Your task to perform on an android device: Find coffee shops on Maps Image 0: 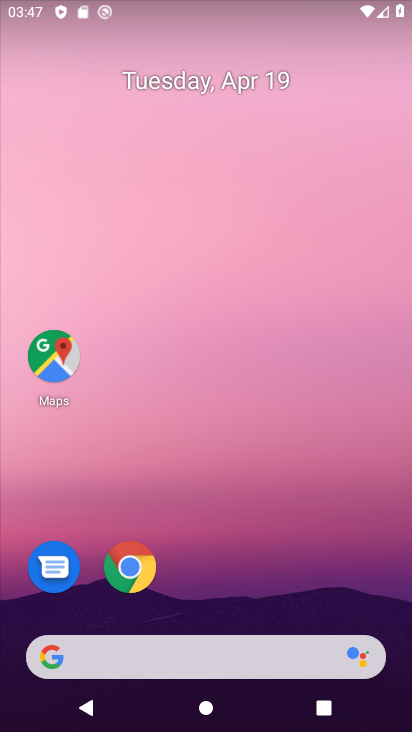
Step 0: drag from (213, 630) to (264, 100)
Your task to perform on an android device: Find coffee shops on Maps Image 1: 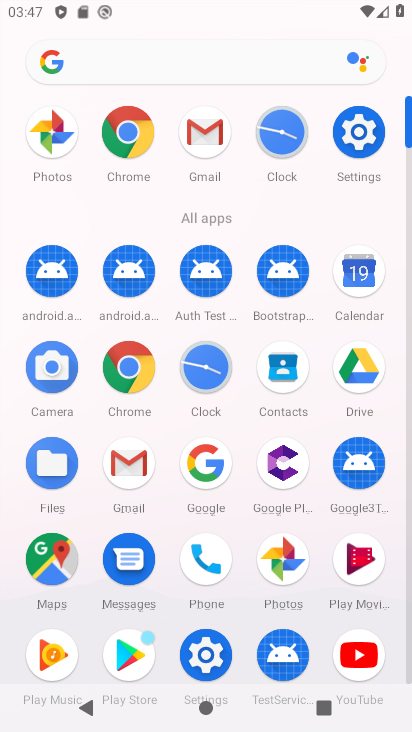
Step 1: click (66, 568)
Your task to perform on an android device: Find coffee shops on Maps Image 2: 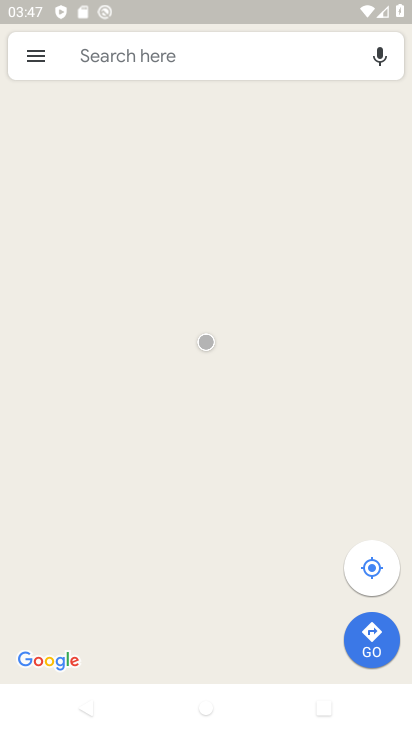
Step 2: click (187, 65)
Your task to perform on an android device: Find coffee shops on Maps Image 3: 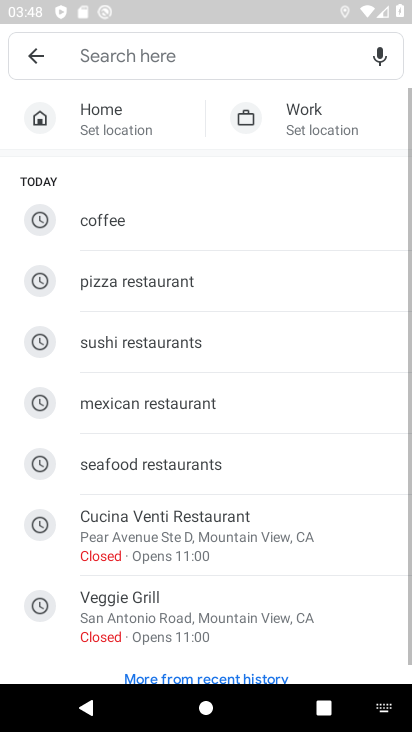
Step 3: type "Coffee shops "
Your task to perform on an android device: Find coffee shops on Maps Image 4: 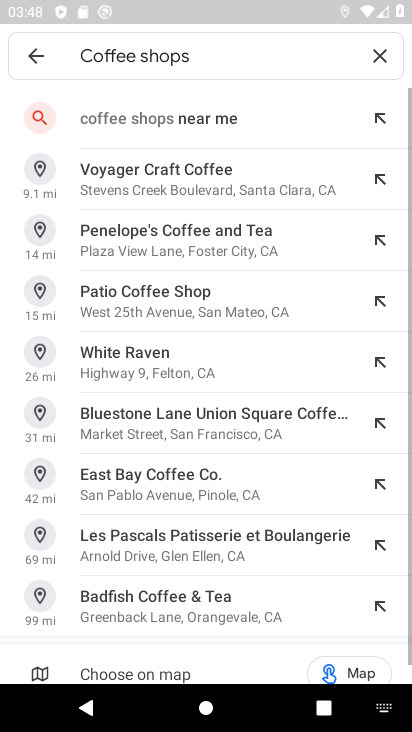
Step 4: click (199, 110)
Your task to perform on an android device: Find coffee shops on Maps Image 5: 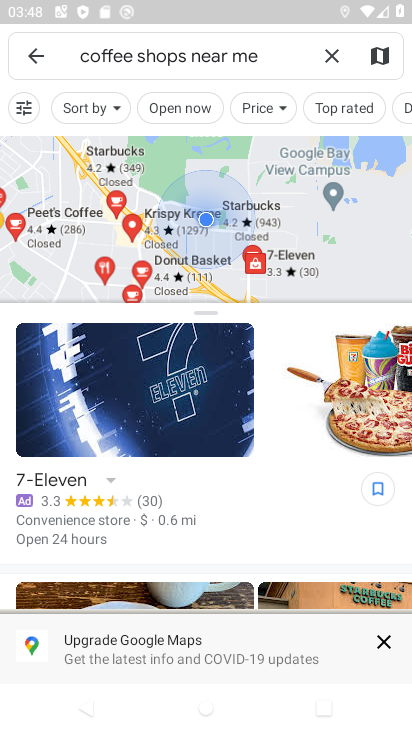
Step 5: click (379, 655)
Your task to perform on an android device: Find coffee shops on Maps Image 6: 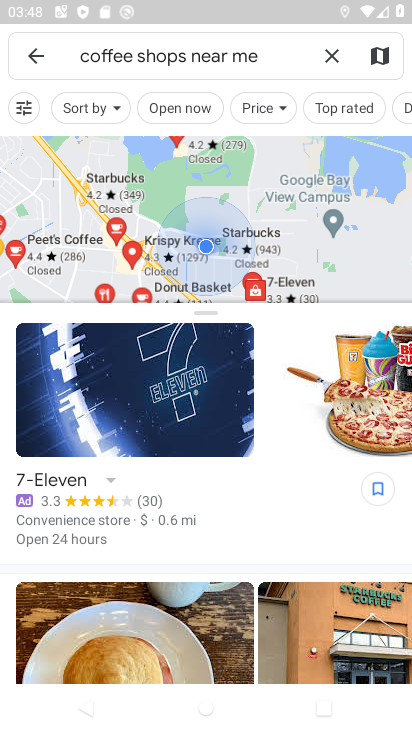
Step 6: task complete